Your task to perform on an android device: Go to wifi settings Image 0: 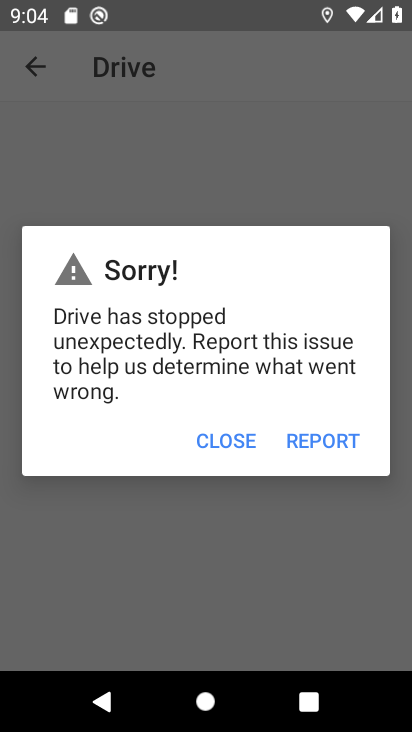
Step 0: press home button
Your task to perform on an android device: Go to wifi settings Image 1: 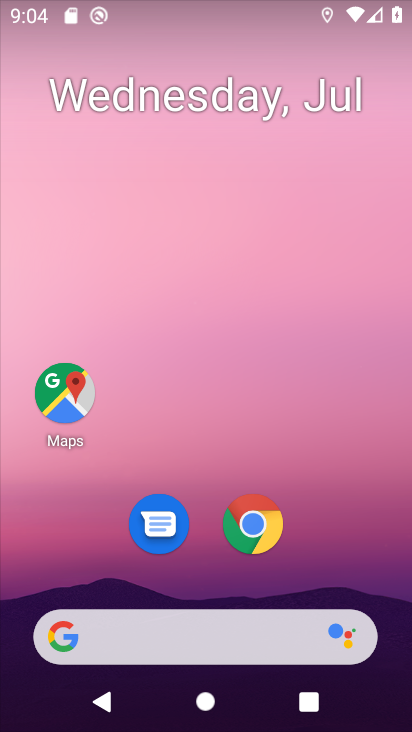
Step 1: drag from (339, 563) to (308, 135)
Your task to perform on an android device: Go to wifi settings Image 2: 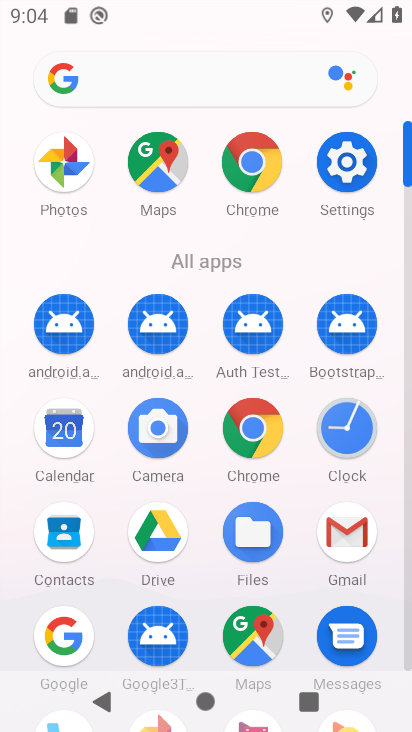
Step 2: click (333, 164)
Your task to perform on an android device: Go to wifi settings Image 3: 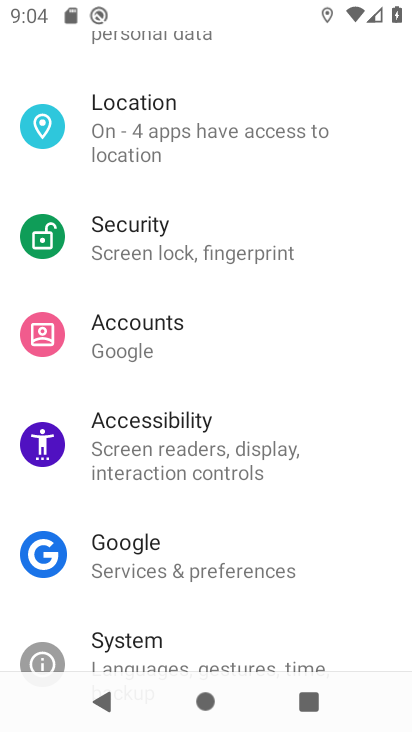
Step 3: drag from (217, 367) to (233, 595)
Your task to perform on an android device: Go to wifi settings Image 4: 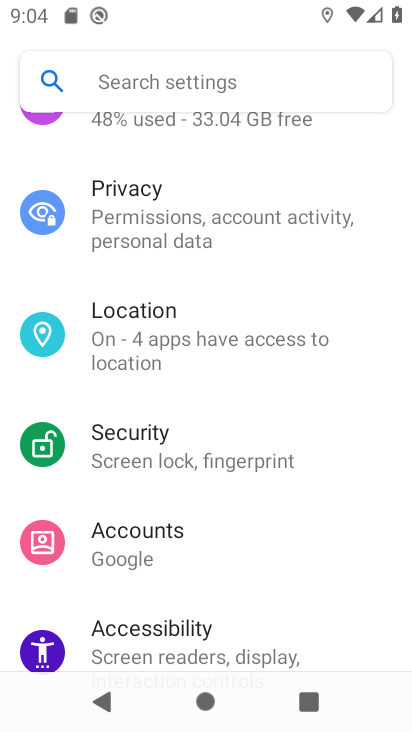
Step 4: drag from (191, 172) to (247, 578)
Your task to perform on an android device: Go to wifi settings Image 5: 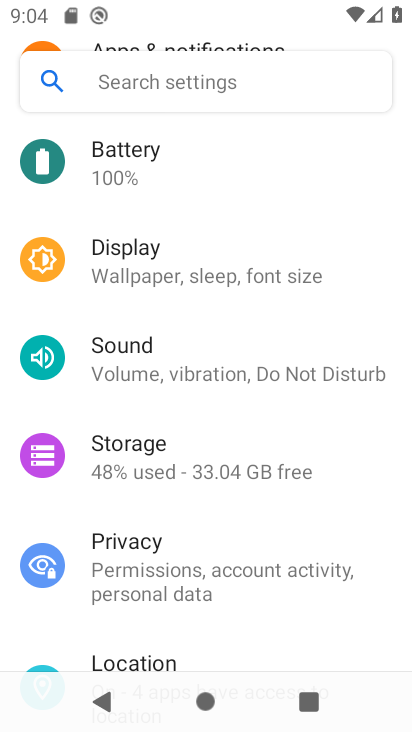
Step 5: drag from (193, 147) to (236, 580)
Your task to perform on an android device: Go to wifi settings Image 6: 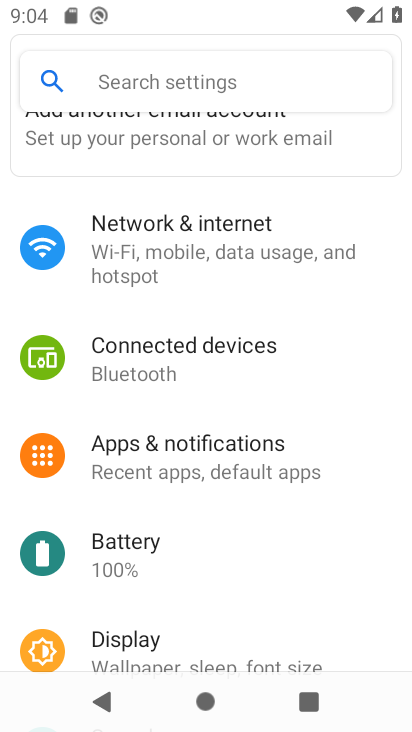
Step 6: click (208, 247)
Your task to perform on an android device: Go to wifi settings Image 7: 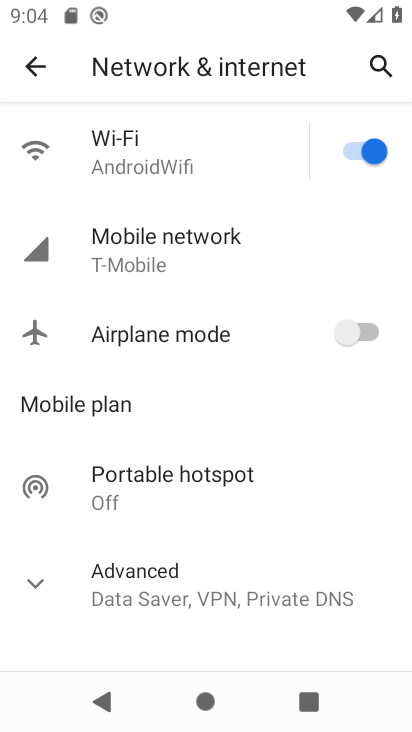
Step 7: click (121, 150)
Your task to perform on an android device: Go to wifi settings Image 8: 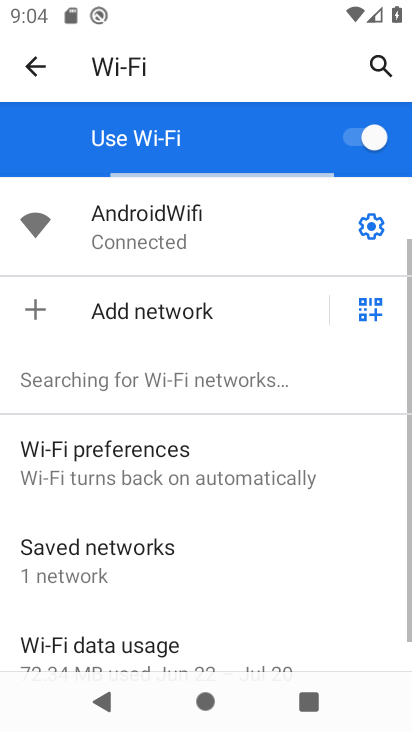
Step 8: task complete